Your task to perform on an android device: Check the news Image 0: 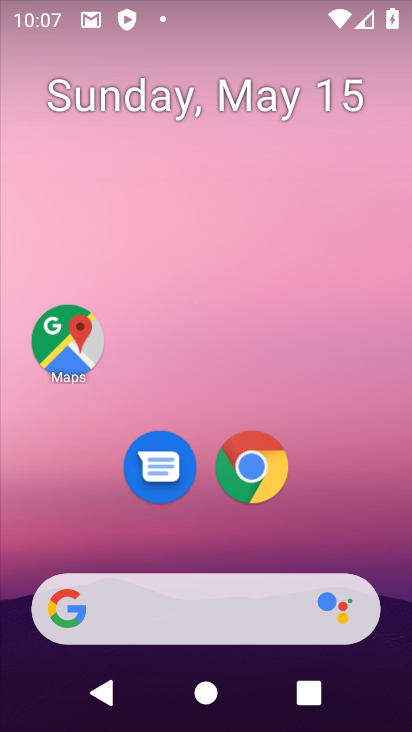
Step 0: drag from (204, 548) to (210, 35)
Your task to perform on an android device: Check the news Image 1: 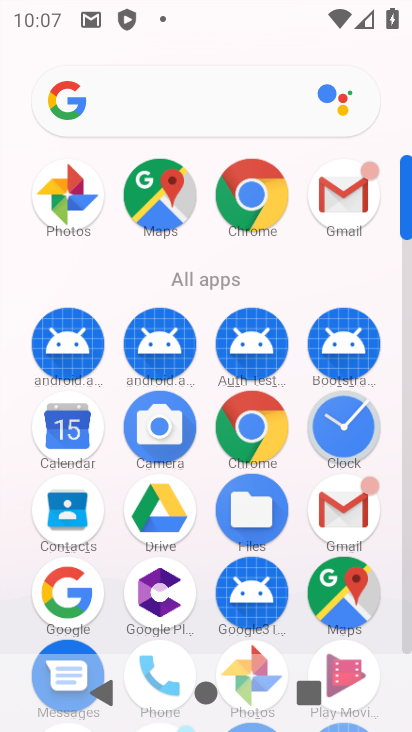
Step 1: click (191, 103)
Your task to perform on an android device: Check the news Image 2: 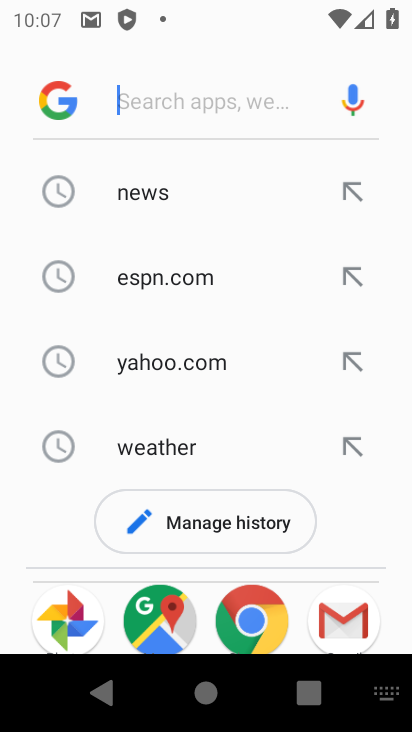
Step 2: click (167, 177)
Your task to perform on an android device: Check the news Image 3: 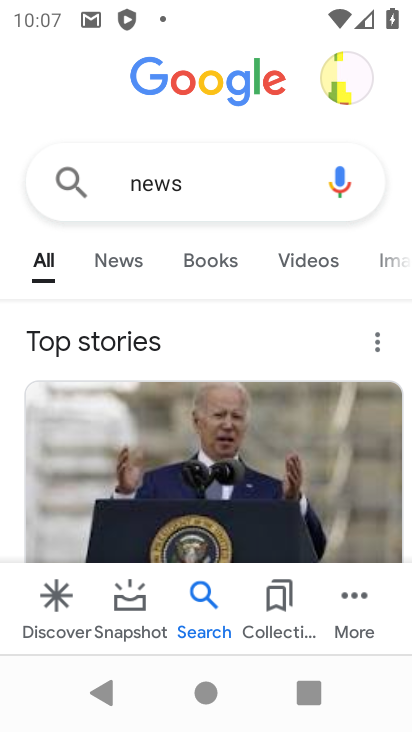
Step 3: task complete